Your task to perform on an android device: open a bookmark in the chrome app Image 0: 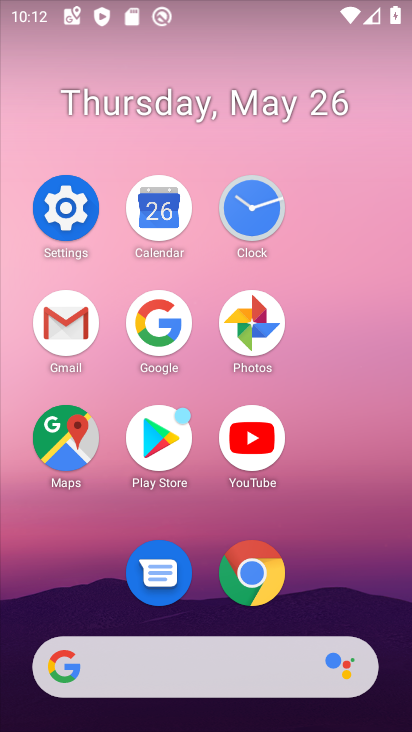
Step 0: click (266, 596)
Your task to perform on an android device: open a bookmark in the chrome app Image 1: 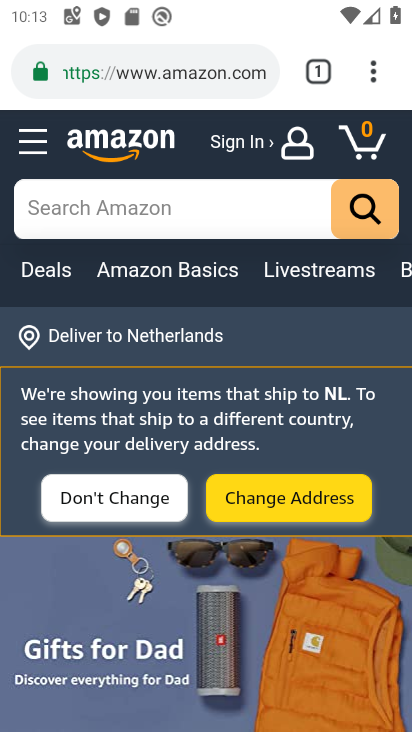
Step 1: click (379, 72)
Your task to perform on an android device: open a bookmark in the chrome app Image 2: 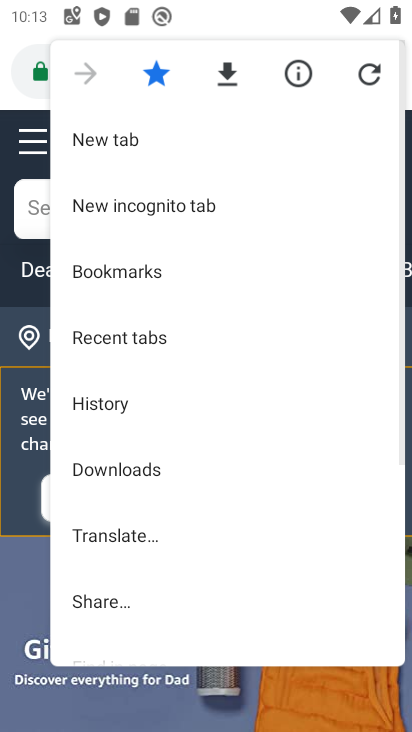
Step 2: click (159, 285)
Your task to perform on an android device: open a bookmark in the chrome app Image 3: 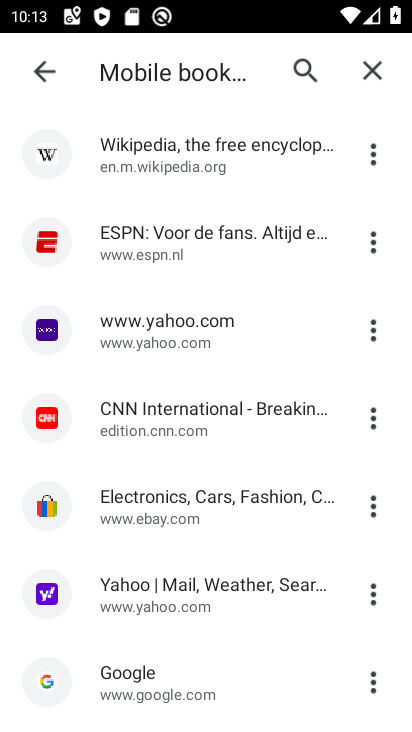
Step 3: task complete